Your task to perform on an android device: read, delete, or share a saved page in the chrome app Image 0: 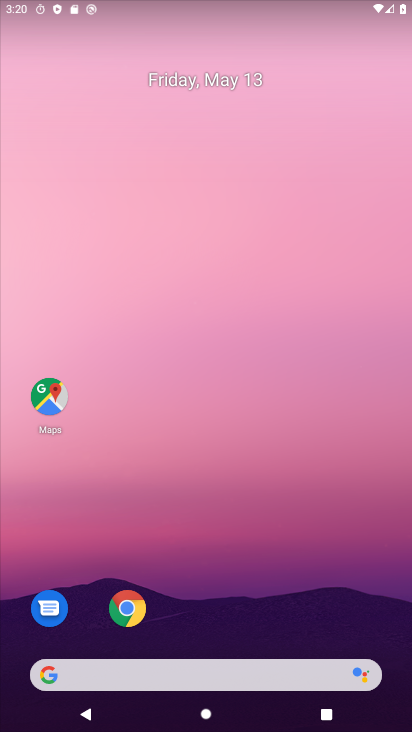
Step 0: click (134, 616)
Your task to perform on an android device: read, delete, or share a saved page in the chrome app Image 1: 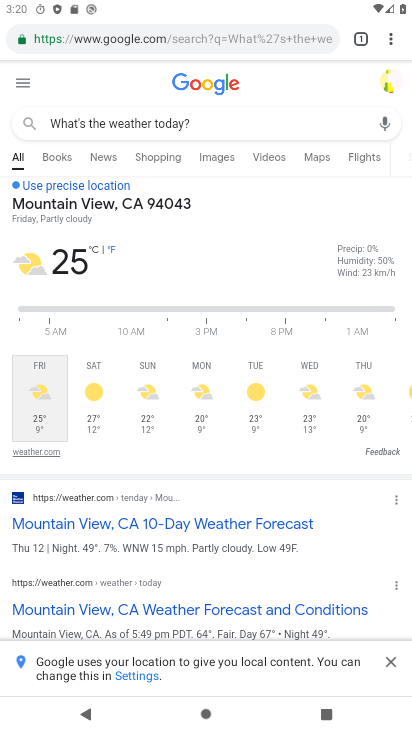
Step 1: drag from (393, 35) to (294, 261)
Your task to perform on an android device: read, delete, or share a saved page in the chrome app Image 2: 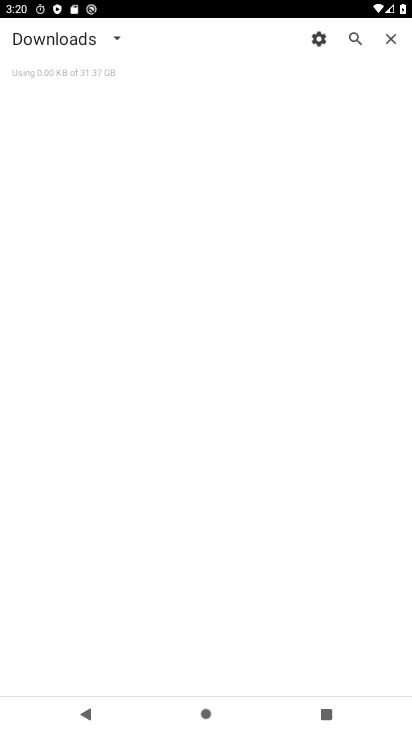
Step 2: click (110, 38)
Your task to perform on an android device: read, delete, or share a saved page in the chrome app Image 3: 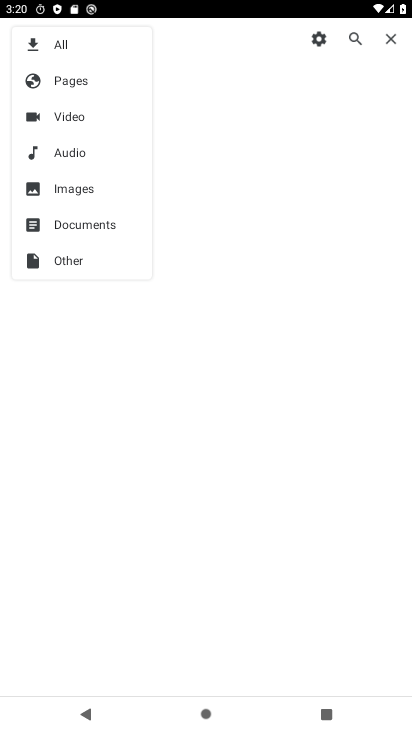
Step 3: click (106, 75)
Your task to perform on an android device: read, delete, or share a saved page in the chrome app Image 4: 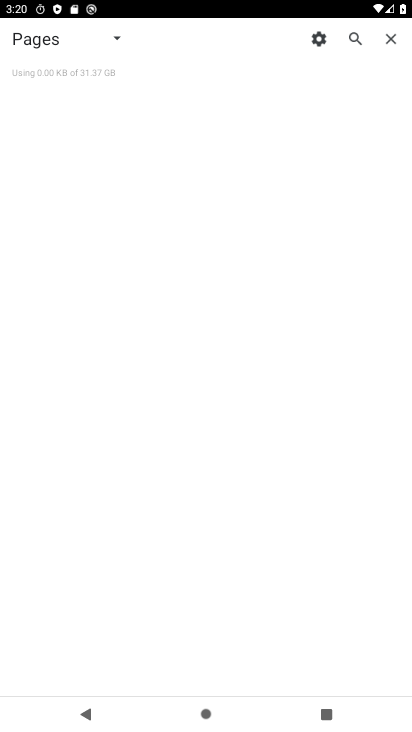
Step 4: task complete